Your task to perform on an android device: What's on my calendar today? Image 0: 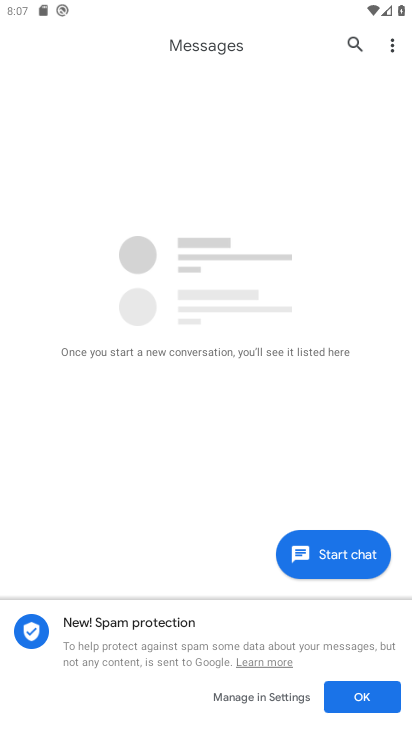
Step 0: press home button
Your task to perform on an android device: What's on my calendar today? Image 1: 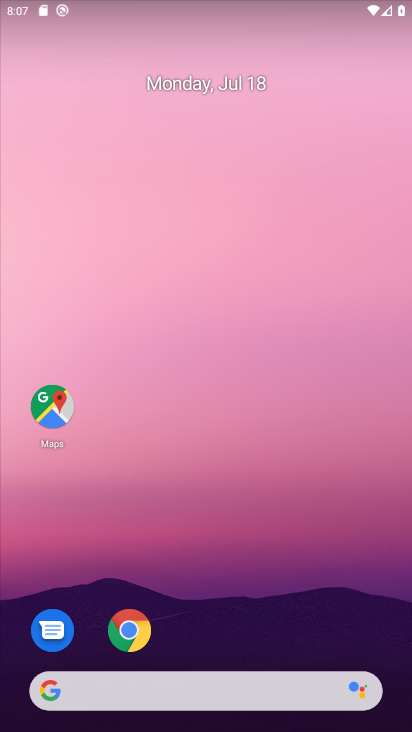
Step 1: drag from (181, 626) to (247, 150)
Your task to perform on an android device: What's on my calendar today? Image 2: 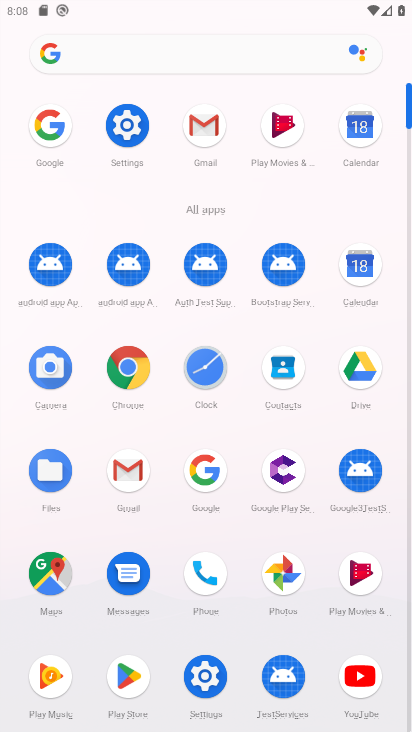
Step 2: click (356, 279)
Your task to perform on an android device: What's on my calendar today? Image 3: 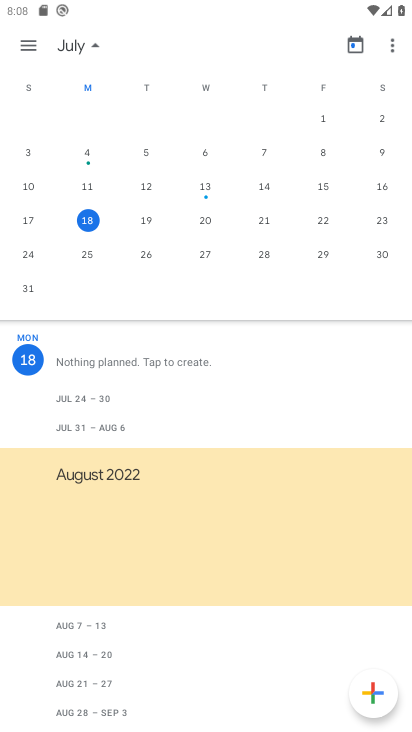
Step 3: task complete